Your task to perform on an android device: Set the phone to "Do not disturb". Image 0: 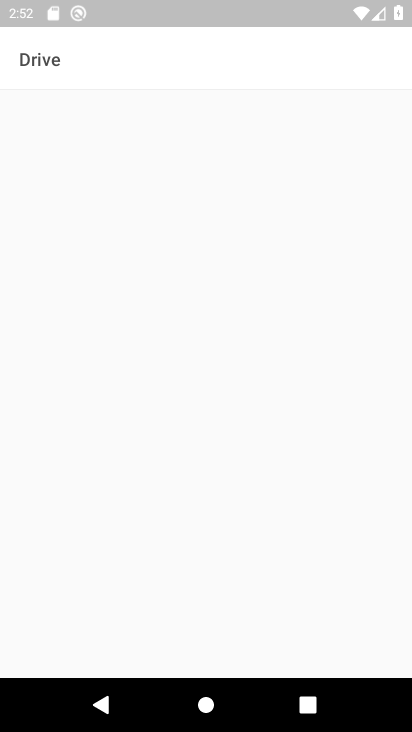
Step 0: press back button
Your task to perform on an android device: Set the phone to "Do not disturb". Image 1: 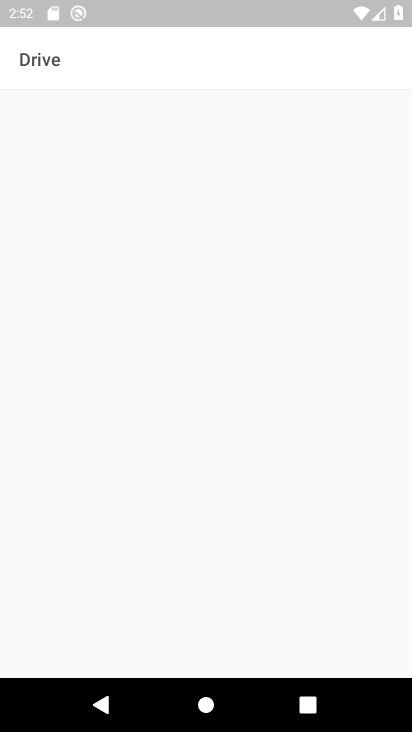
Step 1: press back button
Your task to perform on an android device: Set the phone to "Do not disturb". Image 2: 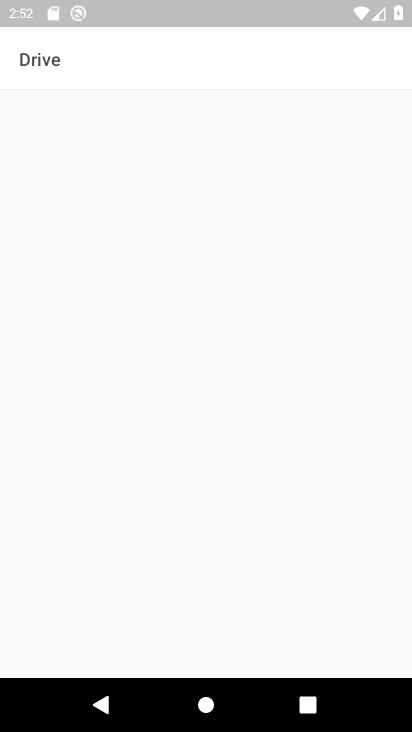
Step 2: press home button
Your task to perform on an android device: Set the phone to "Do not disturb". Image 3: 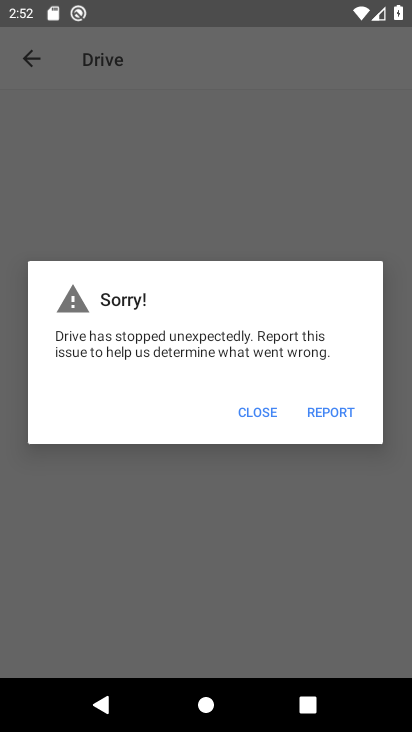
Step 3: press home button
Your task to perform on an android device: Set the phone to "Do not disturb". Image 4: 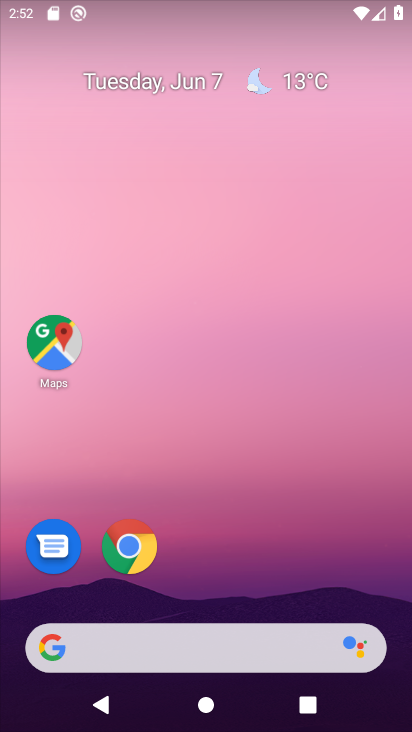
Step 4: drag from (168, 88) to (152, 26)
Your task to perform on an android device: Set the phone to "Do not disturb". Image 5: 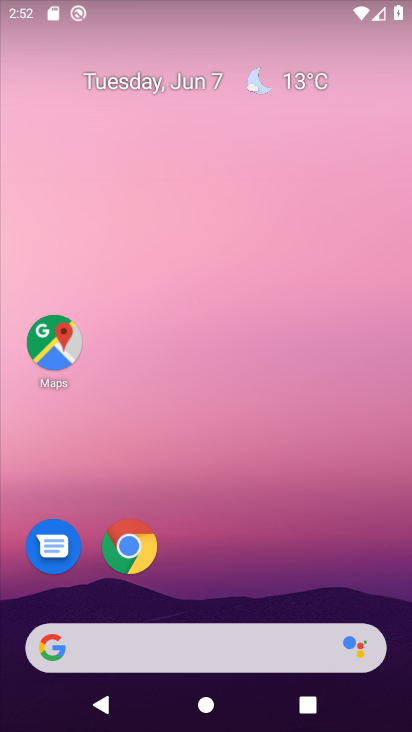
Step 5: drag from (233, 538) to (151, 4)
Your task to perform on an android device: Set the phone to "Do not disturb". Image 6: 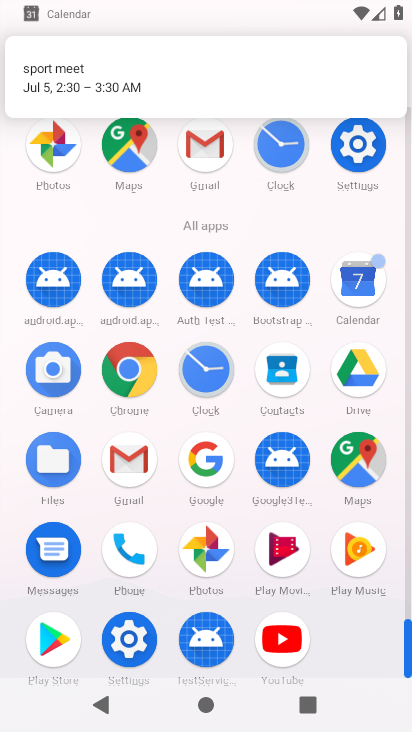
Step 6: click (357, 140)
Your task to perform on an android device: Set the phone to "Do not disturb". Image 7: 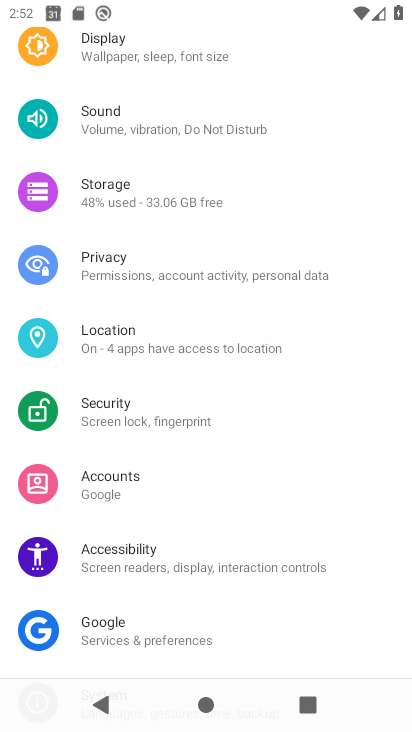
Step 7: click (188, 125)
Your task to perform on an android device: Set the phone to "Do not disturb". Image 8: 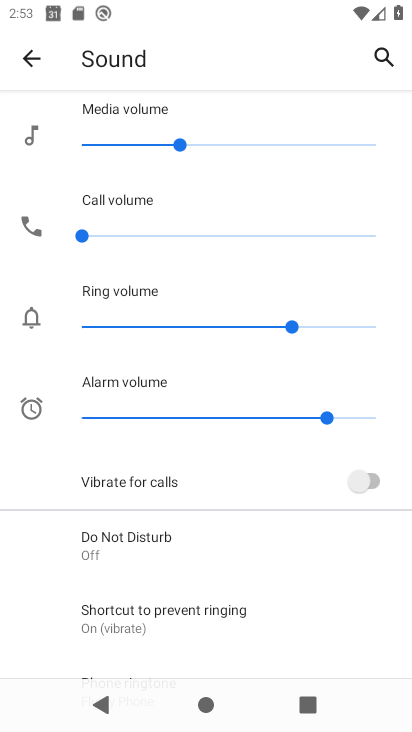
Step 8: drag from (189, 630) to (217, 290)
Your task to perform on an android device: Set the phone to "Do not disturb". Image 9: 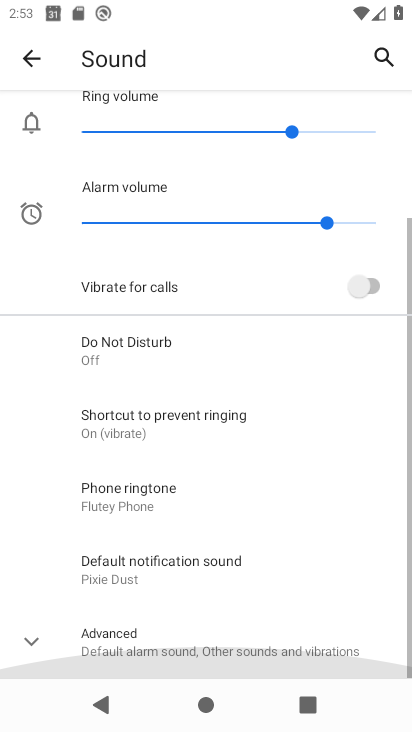
Step 9: click (164, 364)
Your task to perform on an android device: Set the phone to "Do not disturb". Image 10: 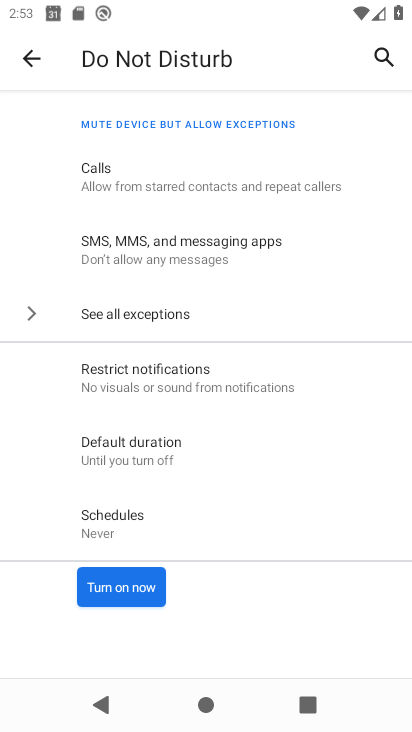
Step 10: click (129, 600)
Your task to perform on an android device: Set the phone to "Do not disturb". Image 11: 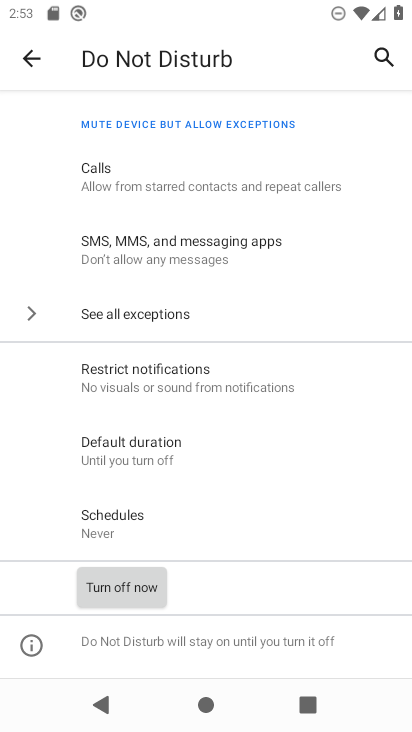
Step 11: task complete